Your task to perform on an android device: open app "Yahoo Mail" (install if not already installed) Image 0: 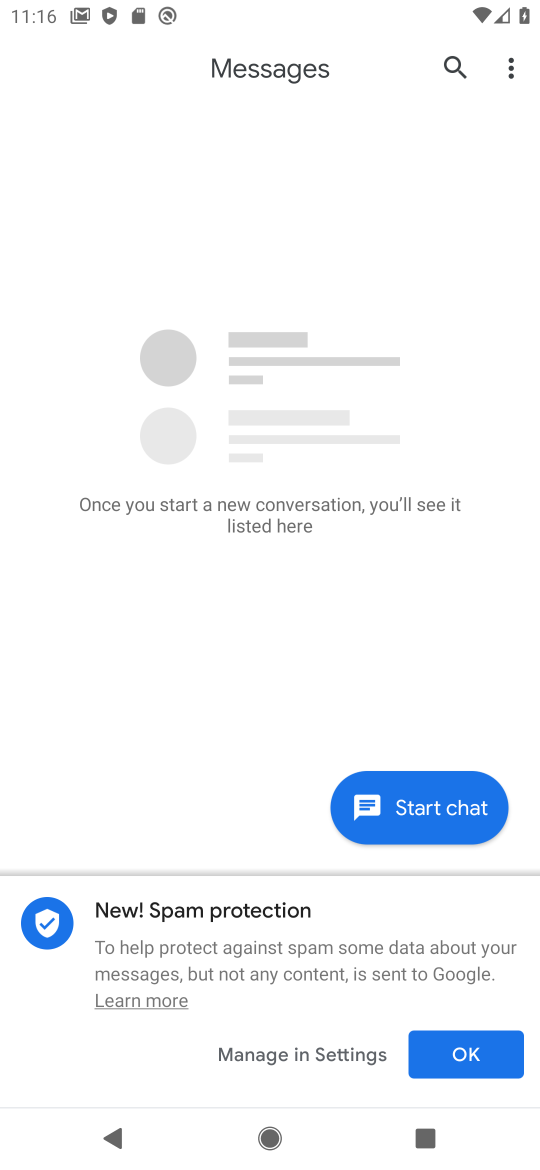
Step 0: press back button
Your task to perform on an android device: open app "Yahoo Mail" (install if not already installed) Image 1: 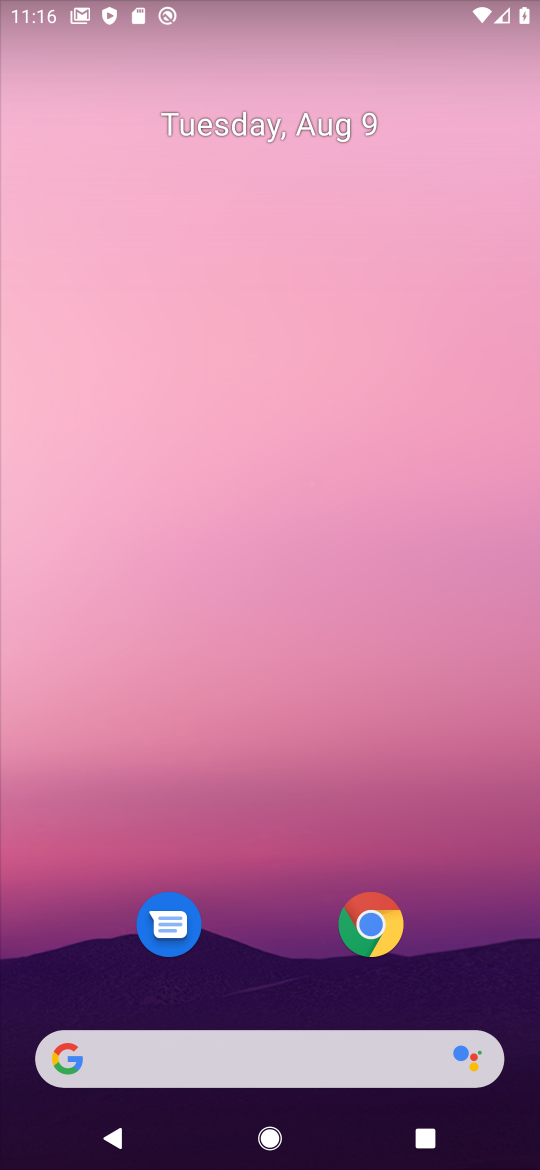
Step 1: drag from (303, 934) to (423, 69)
Your task to perform on an android device: open app "Yahoo Mail" (install if not already installed) Image 2: 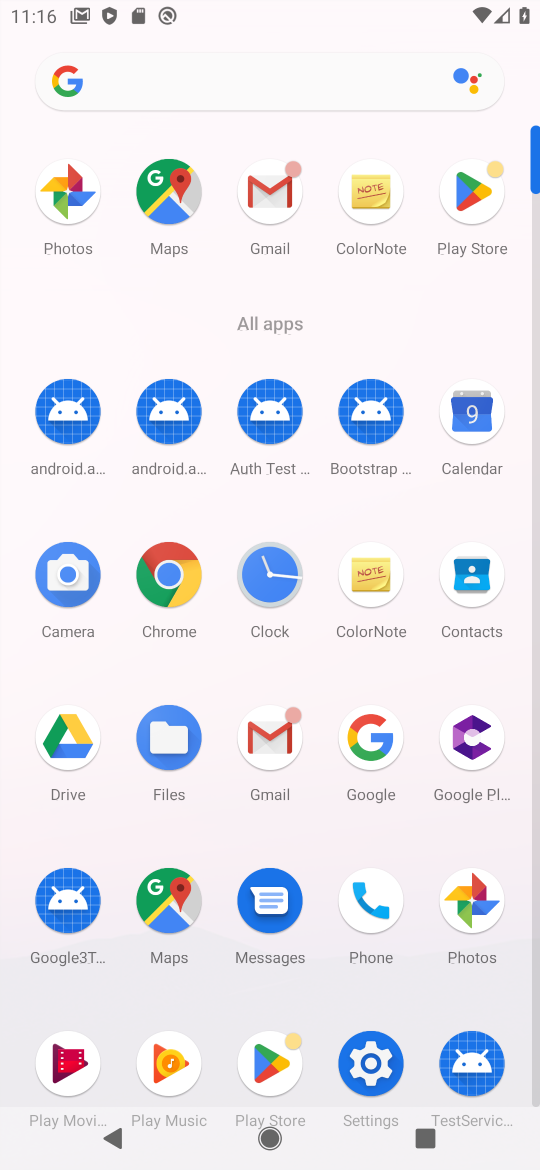
Step 2: click (480, 177)
Your task to perform on an android device: open app "Yahoo Mail" (install if not already installed) Image 3: 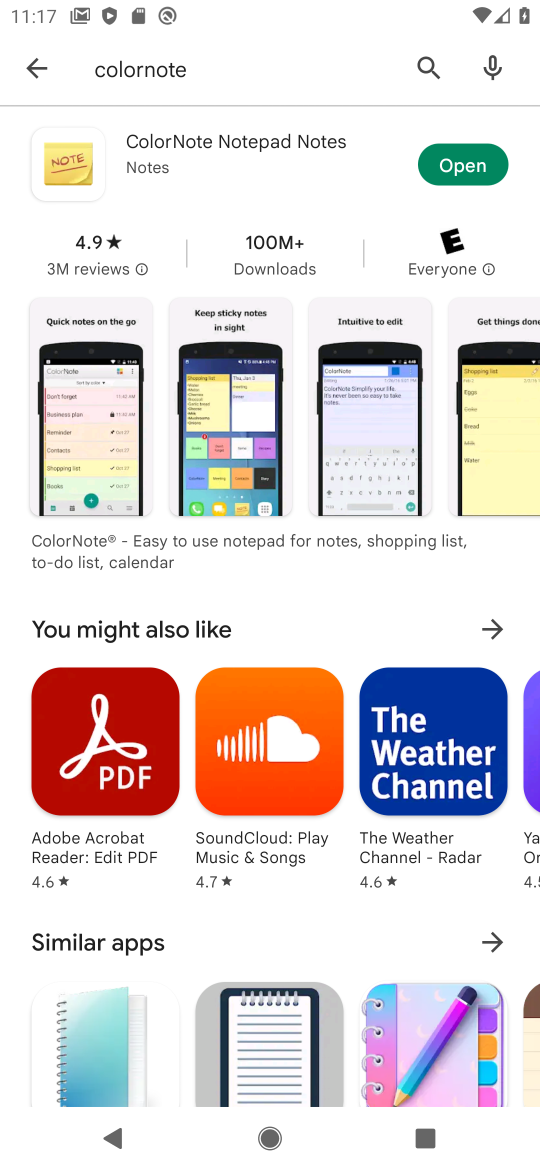
Step 3: click (415, 55)
Your task to perform on an android device: open app "Yahoo Mail" (install if not already installed) Image 4: 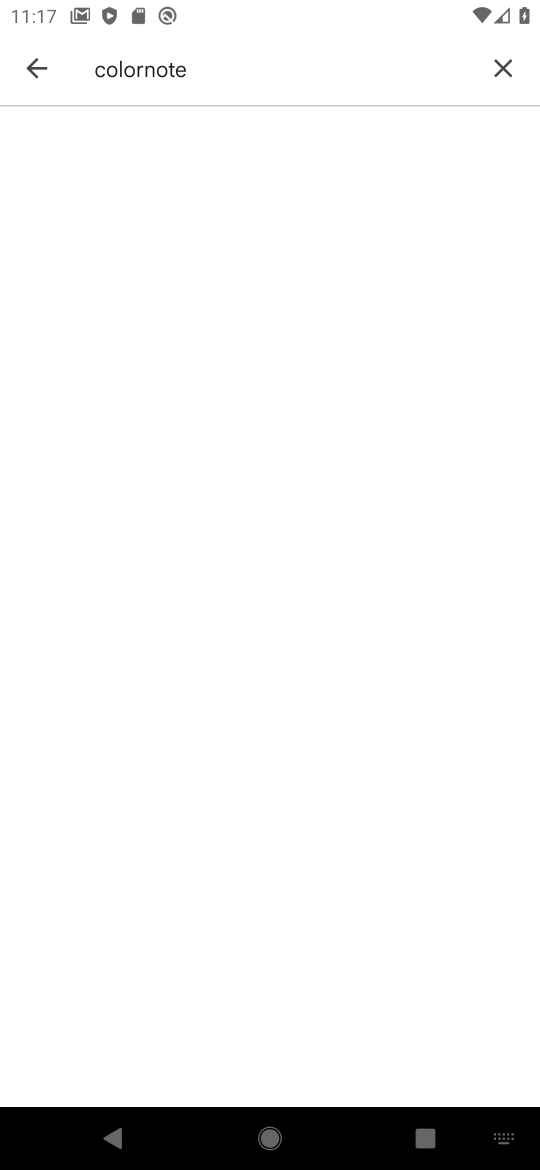
Step 4: click (509, 49)
Your task to perform on an android device: open app "Yahoo Mail" (install if not already installed) Image 5: 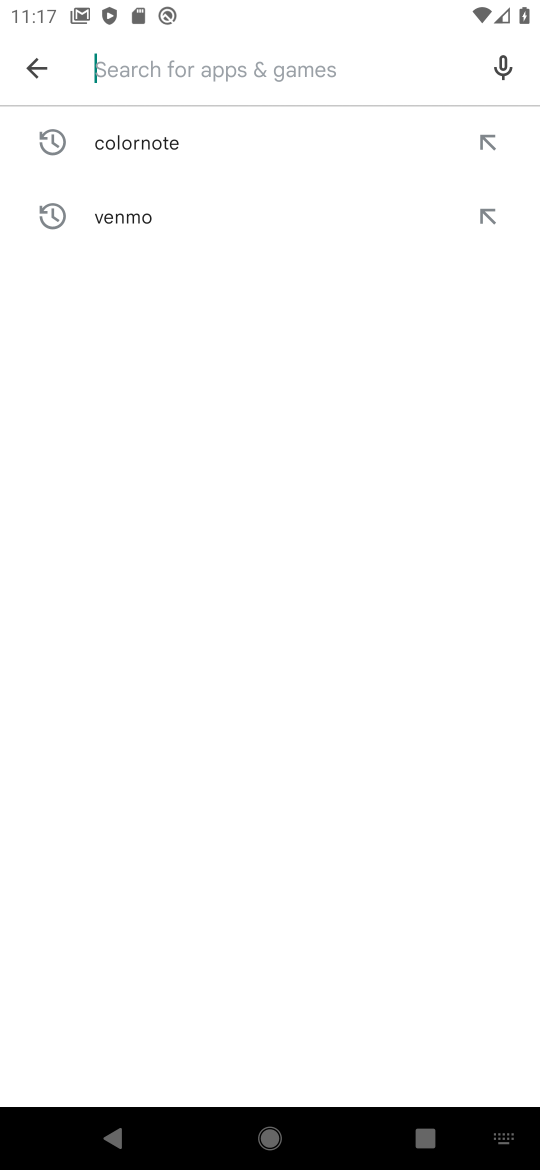
Step 5: click (173, 84)
Your task to perform on an android device: open app "Yahoo Mail" (install if not already installed) Image 6: 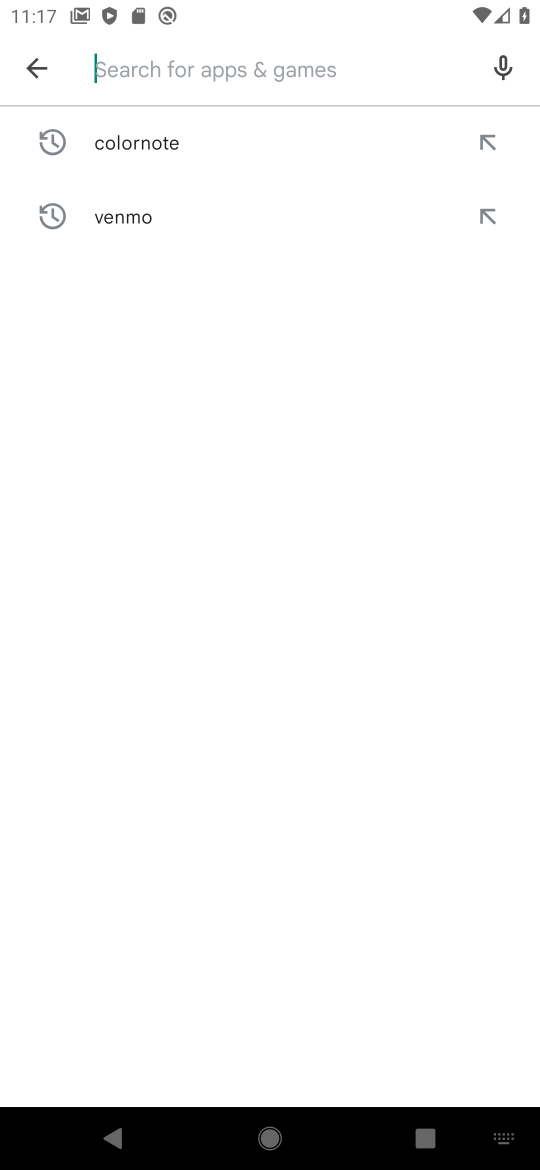
Step 6: type "yahoo"
Your task to perform on an android device: open app "Yahoo Mail" (install if not already installed) Image 7: 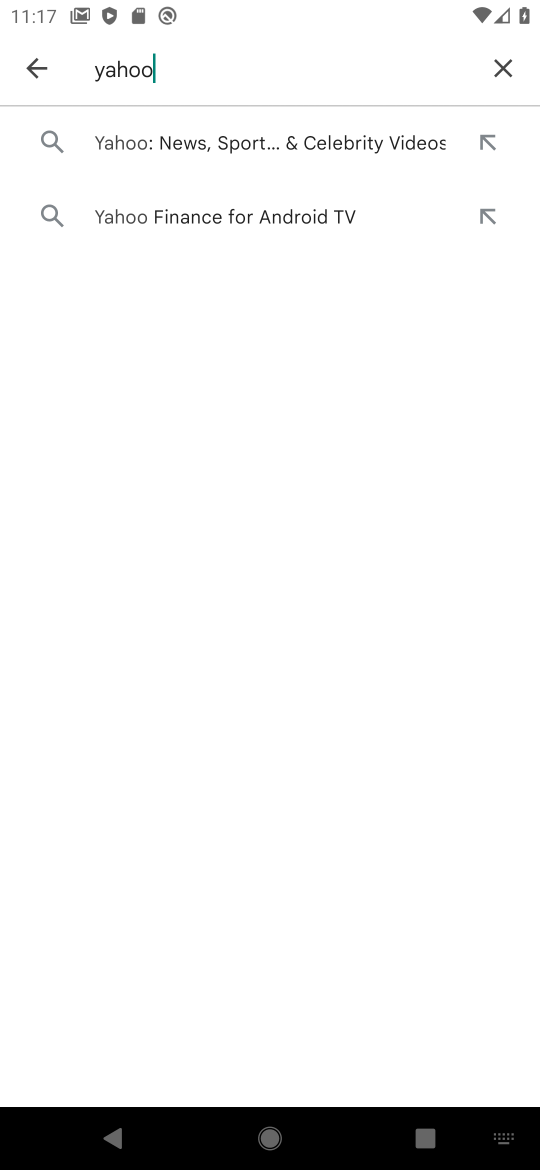
Step 7: click (280, 130)
Your task to perform on an android device: open app "Yahoo Mail" (install if not already installed) Image 8: 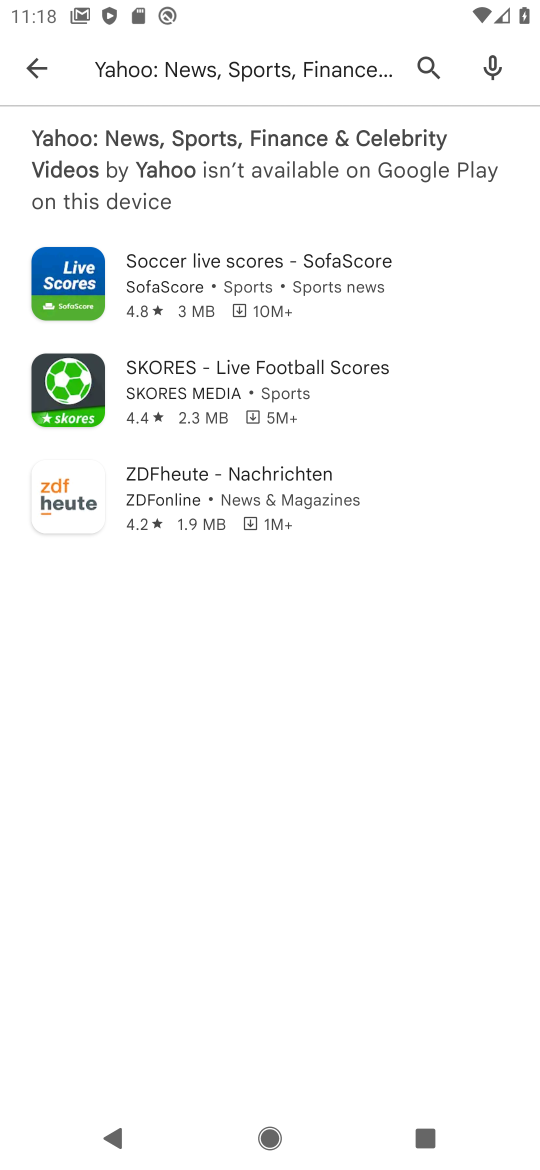
Step 8: task complete